Your task to perform on an android device: Open display settings Image 0: 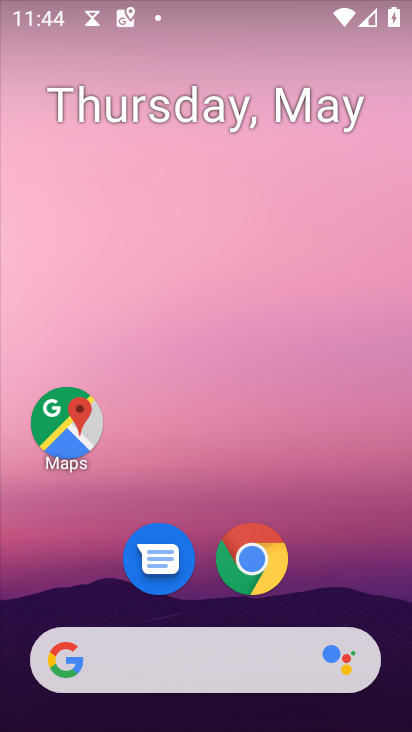
Step 0: drag from (223, 726) to (223, 188)
Your task to perform on an android device: Open display settings Image 1: 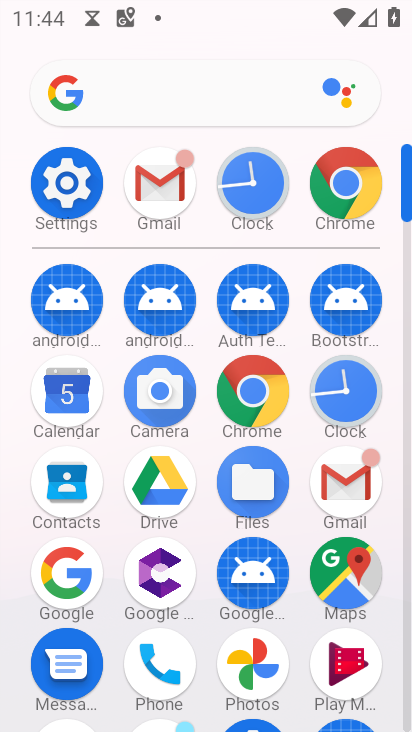
Step 1: click (66, 180)
Your task to perform on an android device: Open display settings Image 2: 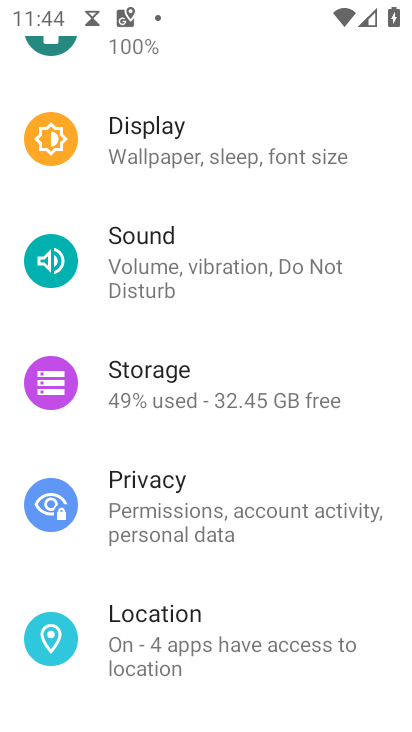
Step 2: drag from (211, 113) to (219, 561)
Your task to perform on an android device: Open display settings Image 3: 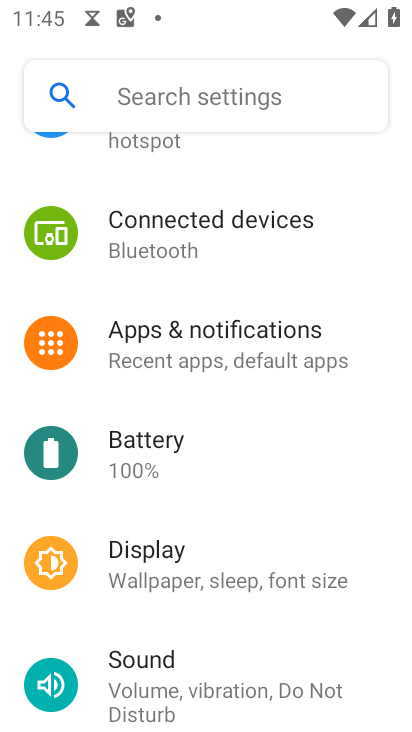
Step 3: click (143, 556)
Your task to perform on an android device: Open display settings Image 4: 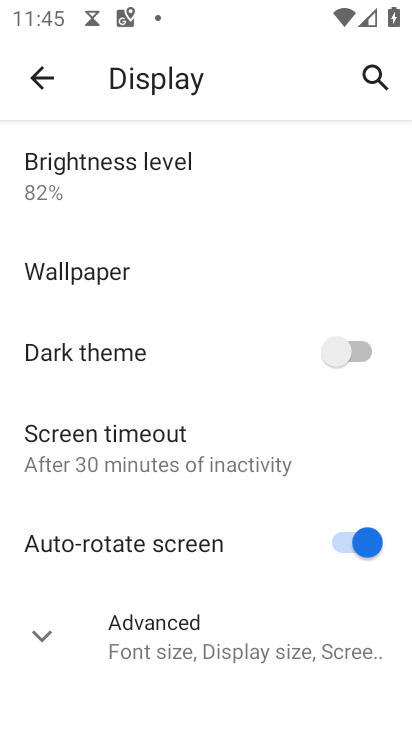
Step 4: task complete